Your task to perform on an android device: What is the recent news? Image 0: 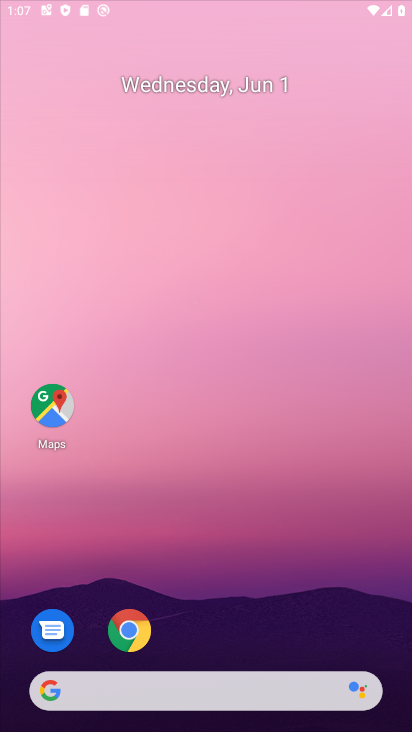
Step 0: press home button
Your task to perform on an android device: What is the recent news? Image 1: 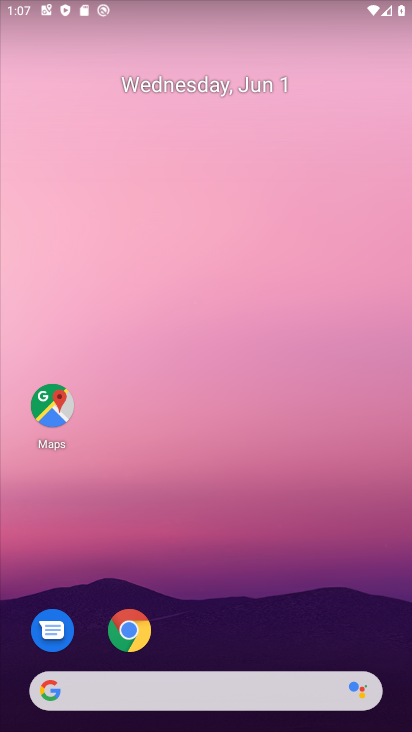
Step 1: click (50, 681)
Your task to perform on an android device: What is the recent news? Image 2: 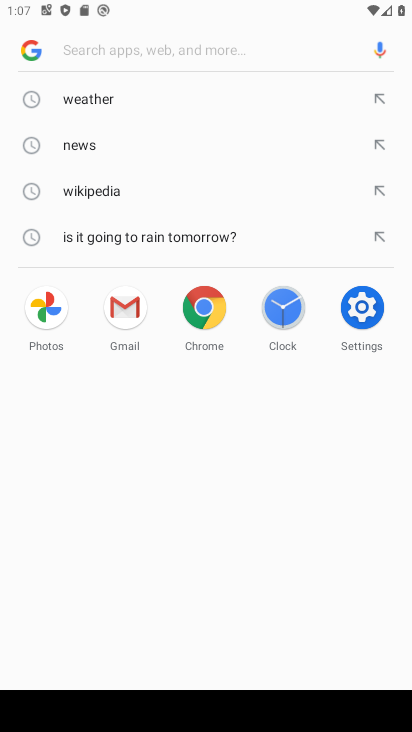
Step 2: type "recent news?"
Your task to perform on an android device: What is the recent news? Image 3: 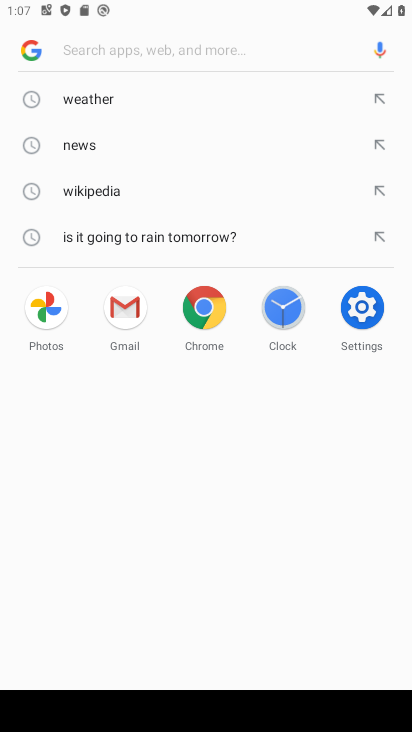
Step 3: click (234, 49)
Your task to perform on an android device: What is the recent news? Image 4: 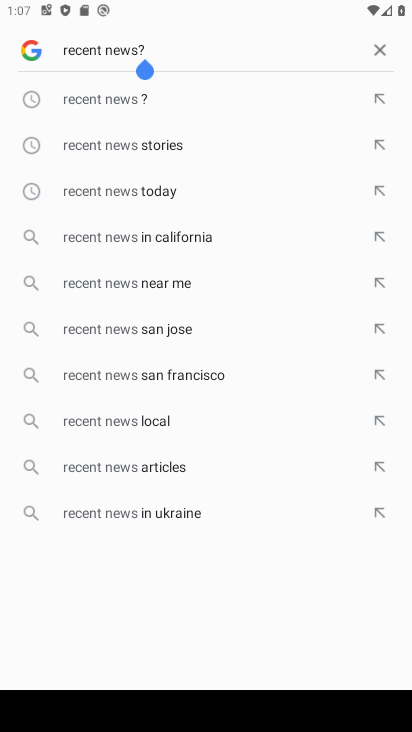
Step 4: click (98, 103)
Your task to perform on an android device: What is the recent news? Image 5: 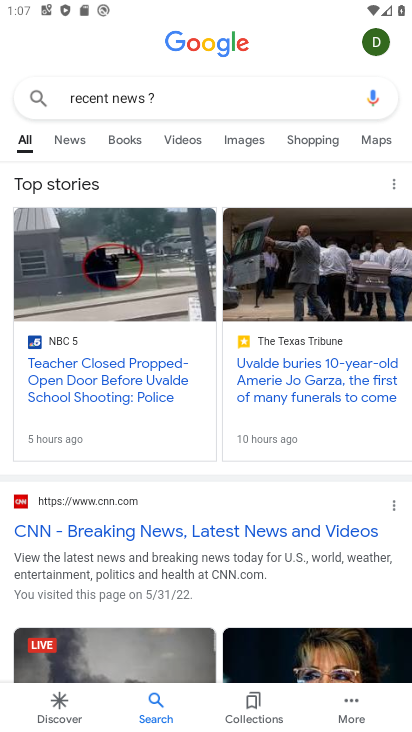
Step 5: task complete